Your task to perform on an android device: open chrome privacy settings Image 0: 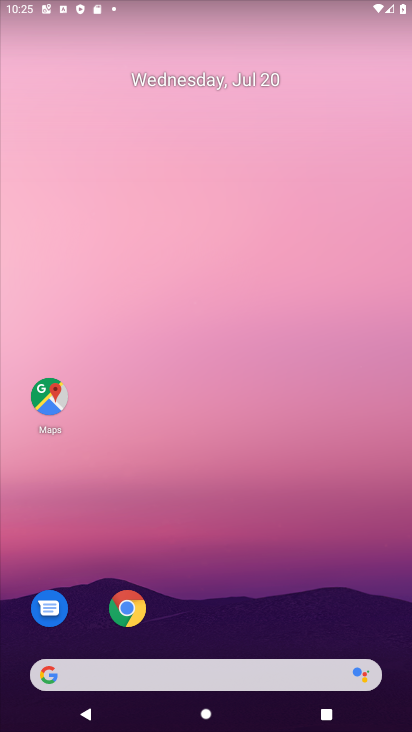
Step 0: drag from (209, 603) to (249, 127)
Your task to perform on an android device: open chrome privacy settings Image 1: 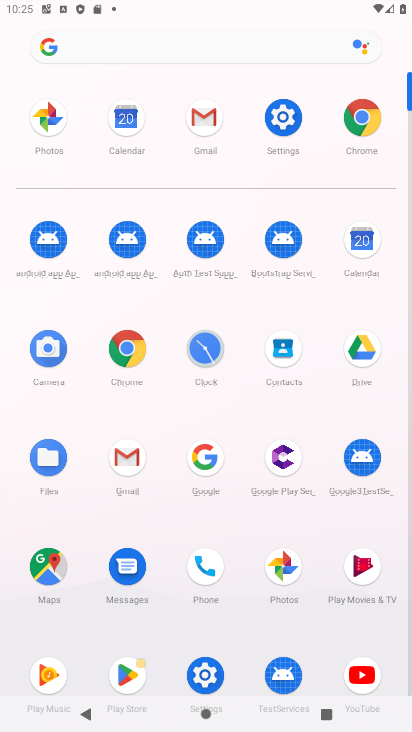
Step 1: click (137, 364)
Your task to perform on an android device: open chrome privacy settings Image 2: 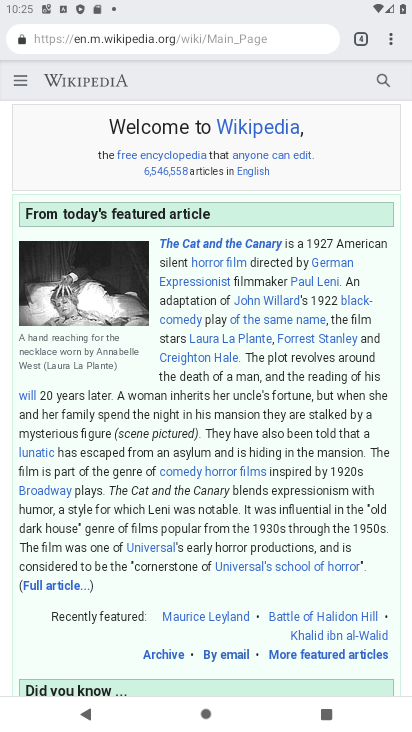
Step 2: click (392, 42)
Your task to perform on an android device: open chrome privacy settings Image 3: 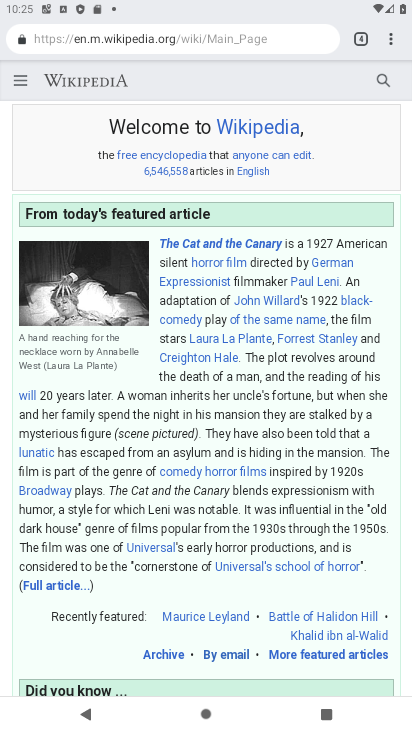
Step 3: click (391, 42)
Your task to perform on an android device: open chrome privacy settings Image 4: 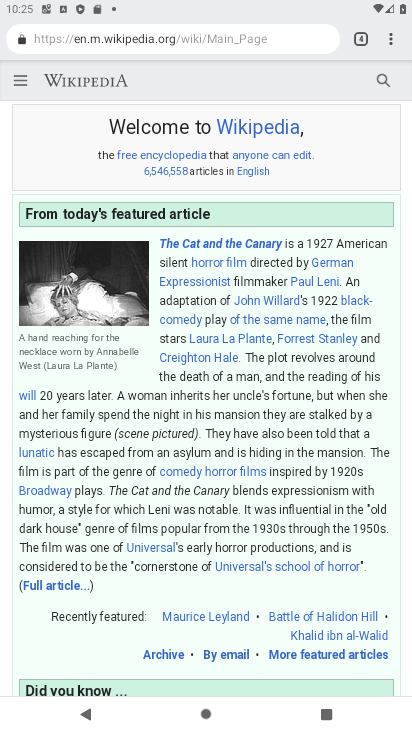
Step 4: click (391, 41)
Your task to perform on an android device: open chrome privacy settings Image 5: 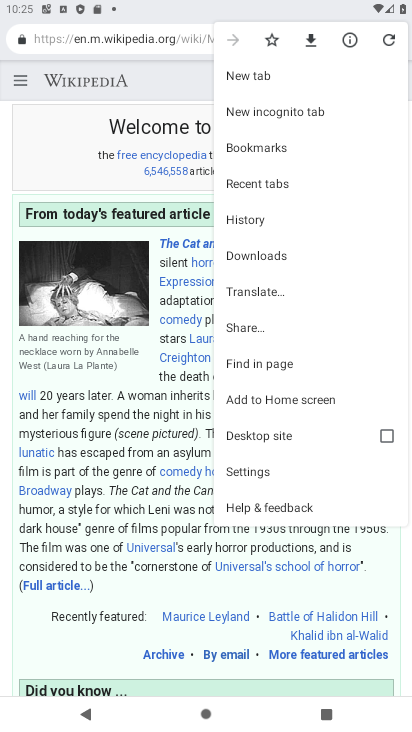
Step 5: click (246, 470)
Your task to perform on an android device: open chrome privacy settings Image 6: 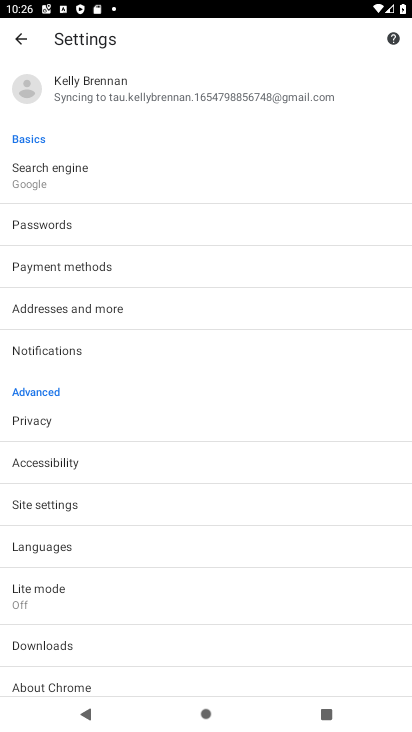
Step 6: click (99, 431)
Your task to perform on an android device: open chrome privacy settings Image 7: 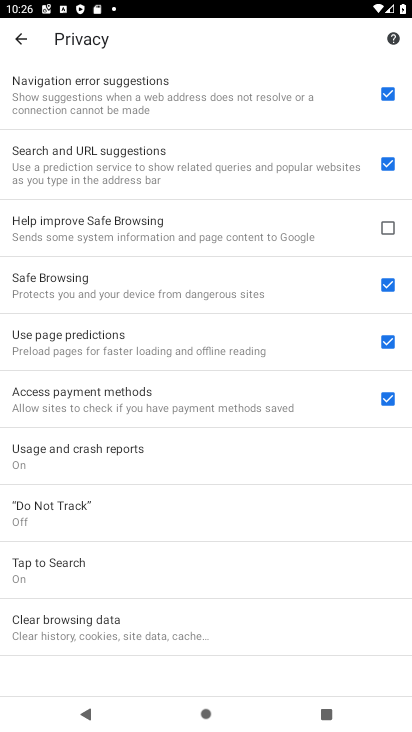
Step 7: task complete